Your task to perform on an android device: open sync settings in chrome Image 0: 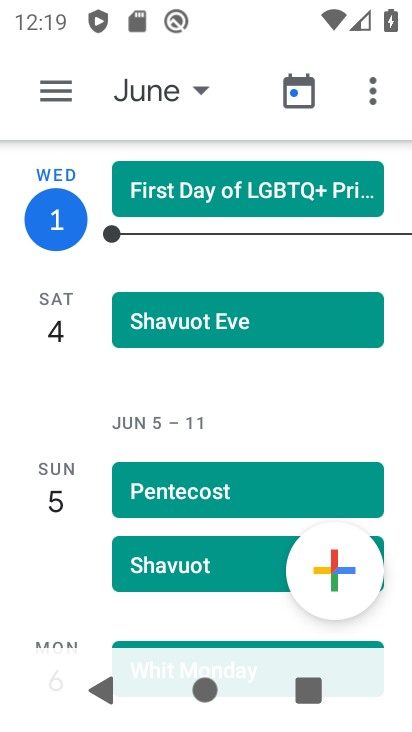
Step 0: press home button
Your task to perform on an android device: open sync settings in chrome Image 1: 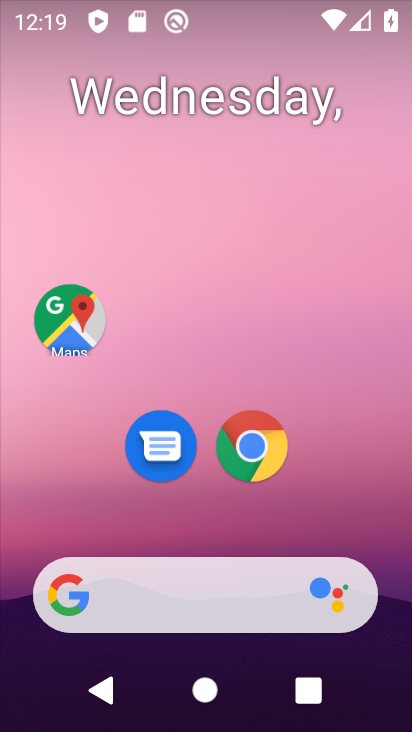
Step 1: click (255, 444)
Your task to perform on an android device: open sync settings in chrome Image 2: 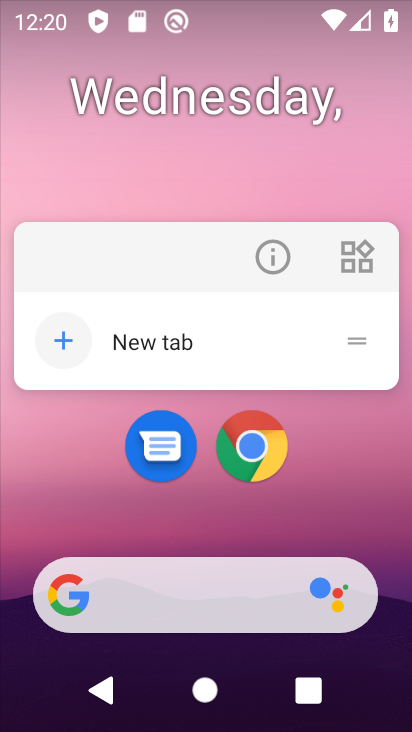
Step 2: click (333, 505)
Your task to perform on an android device: open sync settings in chrome Image 3: 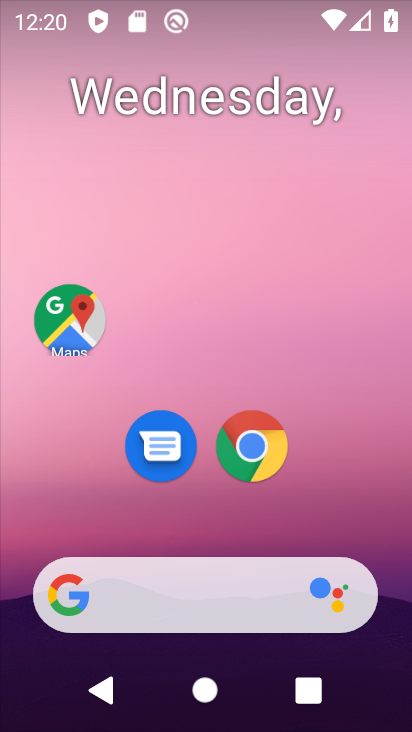
Step 3: click (247, 459)
Your task to perform on an android device: open sync settings in chrome Image 4: 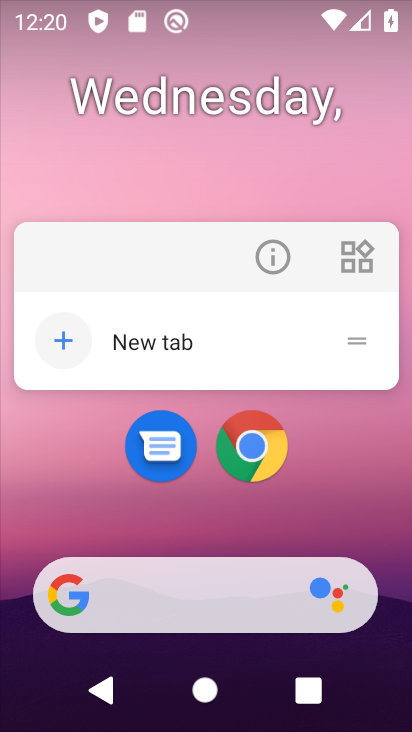
Step 4: click (240, 454)
Your task to perform on an android device: open sync settings in chrome Image 5: 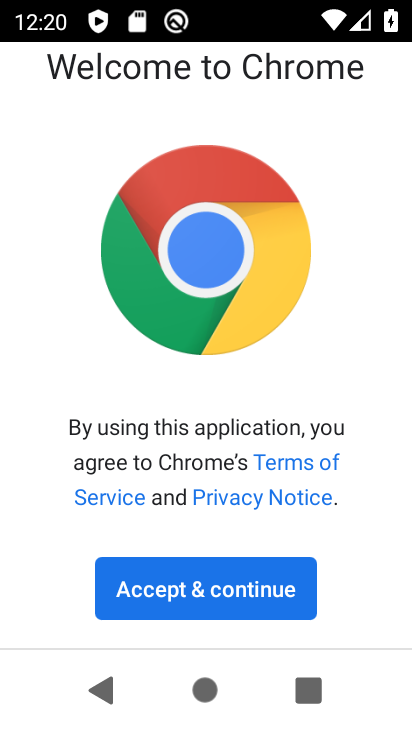
Step 5: click (218, 594)
Your task to perform on an android device: open sync settings in chrome Image 6: 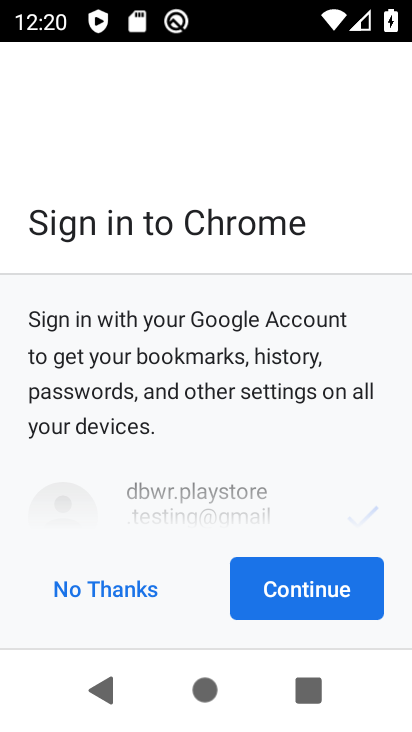
Step 6: click (101, 593)
Your task to perform on an android device: open sync settings in chrome Image 7: 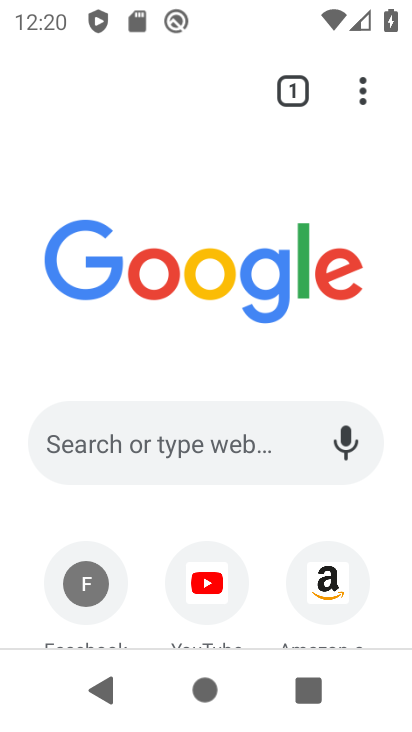
Step 7: click (362, 96)
Your task to perform on an android device: open sync settings in chrome Image 8: 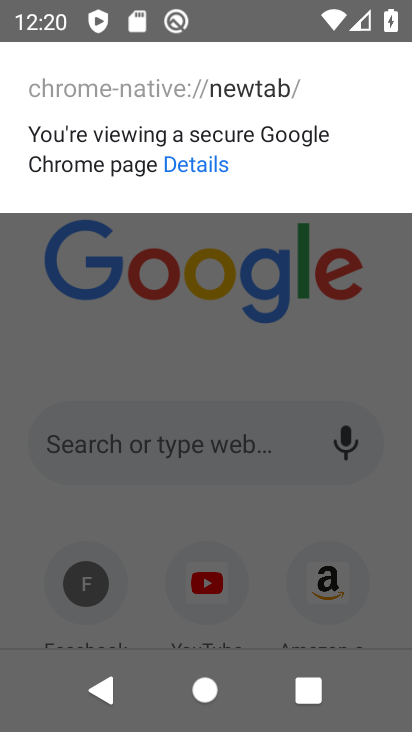
Step 8: press back button
Your task to perform on an android device: open sync settings in chrome Image 9: 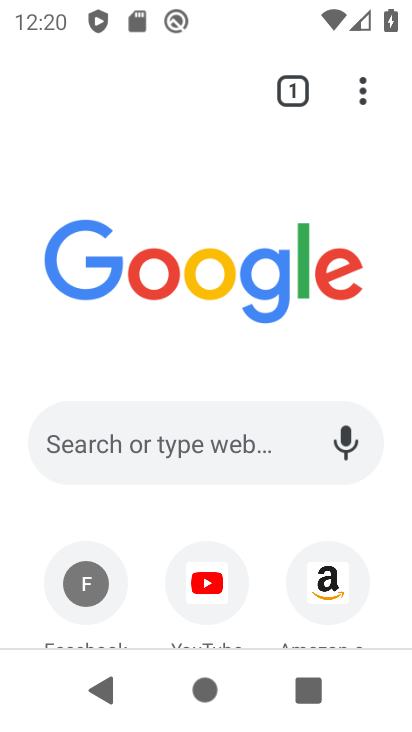
Step 9: click (359, 89)
Your task to perform on an android device: open sync settings in chrome Image 10: 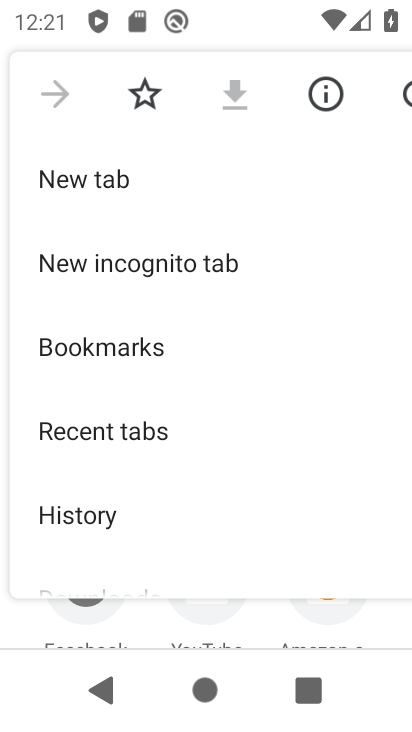
Step 10: drag from (83, 549) to (311, 173)
Your task to perform on an android device: open sync settings in chrome Image 11: 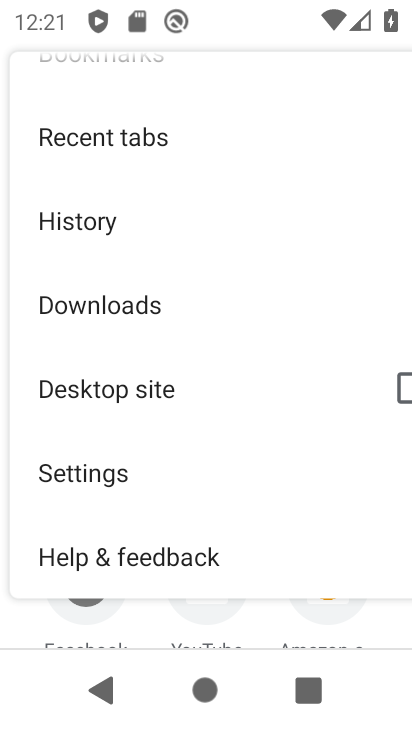
Step 11: click (120, 471)
Your task to perform on an android device: open sync settings in chrome Image 12: 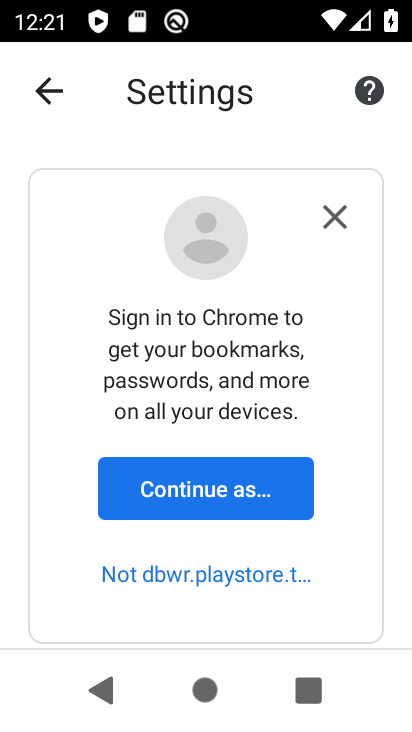
Step 12: click (212, 500)
Your task to perform on an android device: open sync settings in chrome Image 13: 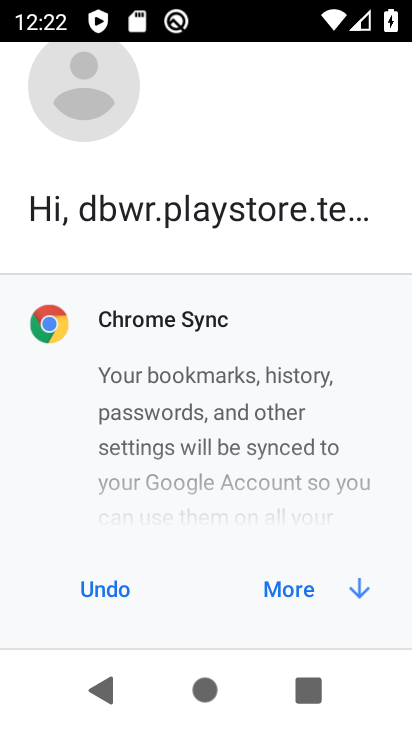
Step 13: click (351, 584)
Your task to perform on an android device: open sync settings in chrome Image 14: 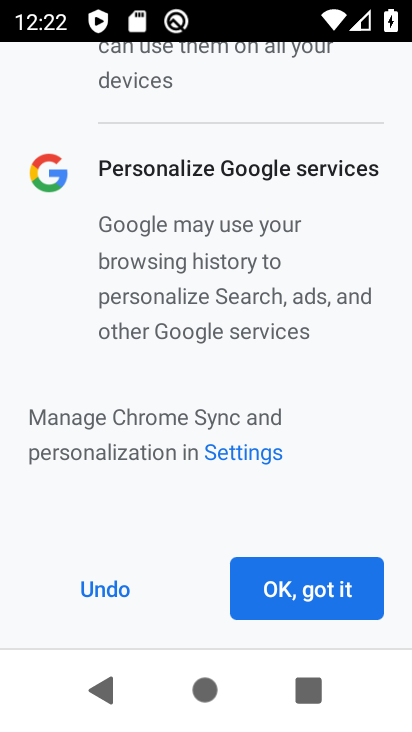
Step 14: click (351, 584)
Your task to perform on an android device: open sync settings in chrome Image 15: 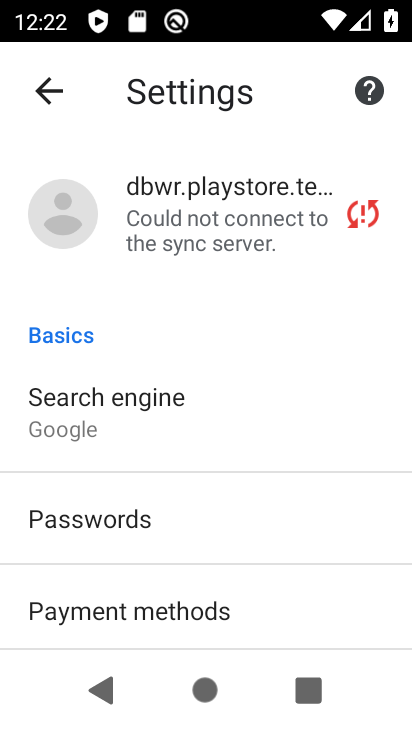
Step 15: click (201, 246)
Your task to perform on an android device: open sync settings in chrome Image 16: 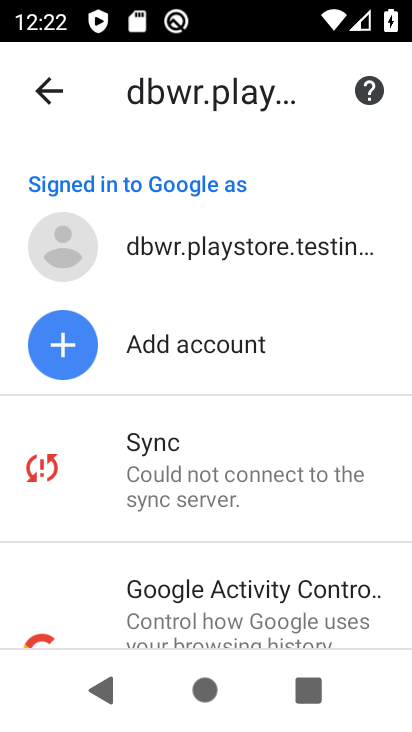
Step 16: click (227, 489)
Your task to perform on an android device: open sync settings in chrome Image 17: 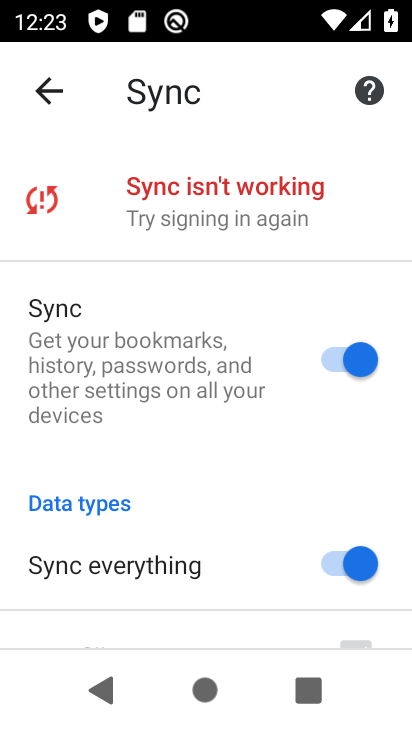
Step 17: task complete